Your task to perform on an android device: change notification settings in the gmail app Image 0: 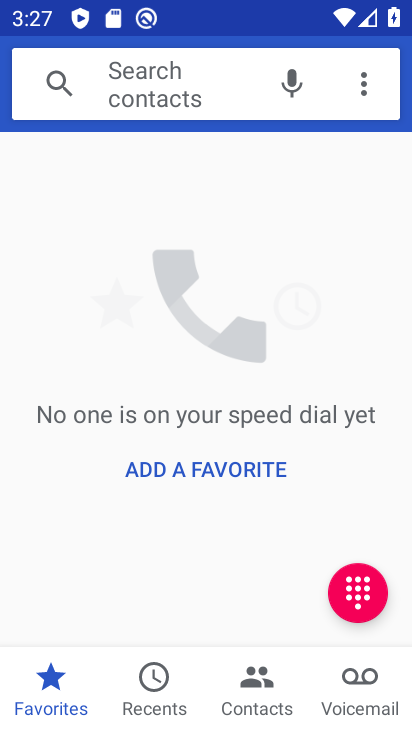
Step 0: press home button
Your task to perform on an android device: change notification settings in the gmail app Image 1: 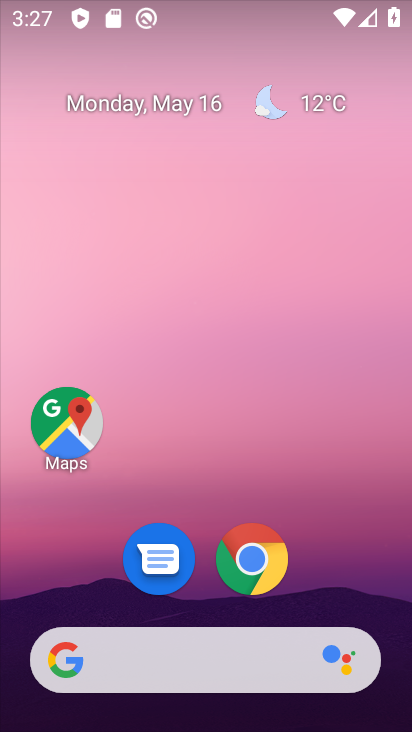
Step 1: drag from (358, 589) to (302, 58)
Your task to perform on an android device: change notification settings in the gmail app Image 2: 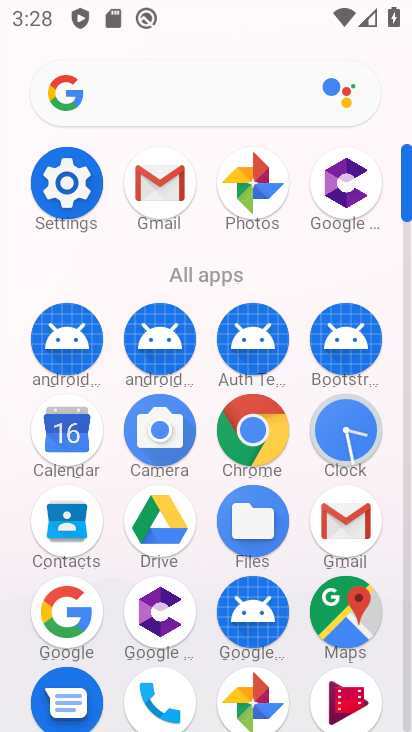
Step 2: click (176, 198)
Your task to perform on an android device: change notification settings in the gmail app Image 3: 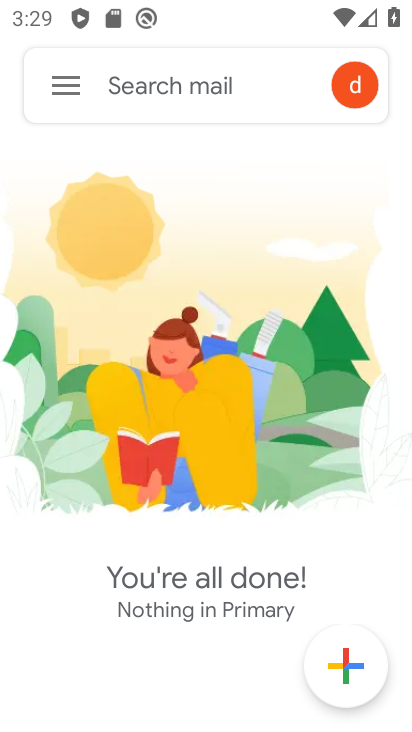
Step 3: click (91, 102)
Your task to perform on an android device: change notification settings in the gmail app Image 4: 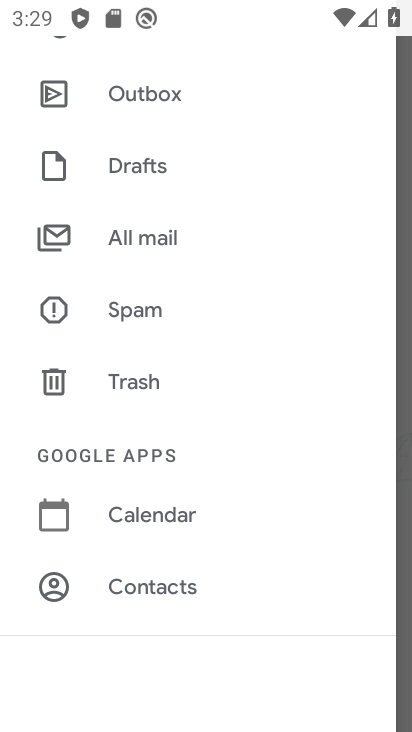
Step 4: drag from (172, 571) to (221, 233)
Your task to perform on an android device: change notification settings in the gmail app Image 5: 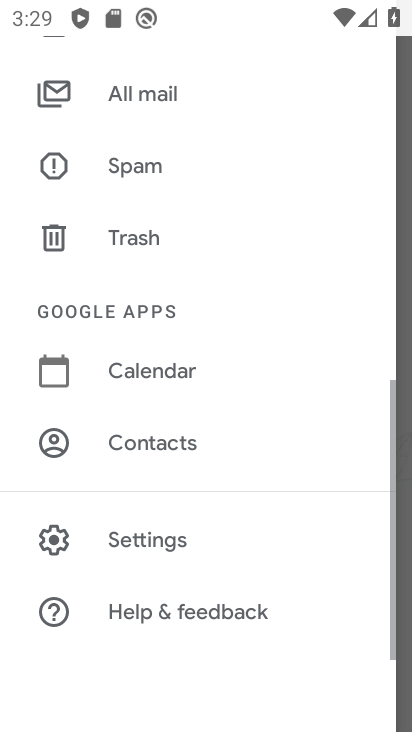
Step 5: click (203, 524)
Your task to perform on an android device: change notification settings in the gmail app Image 6: 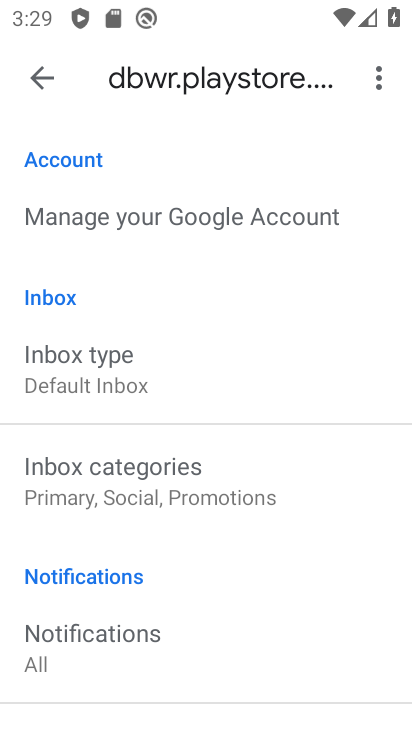
Step 6: drag from (173, 629) to (176, 376)
Your task to perform on an android device: change notification settings in the gmail app Image 7: 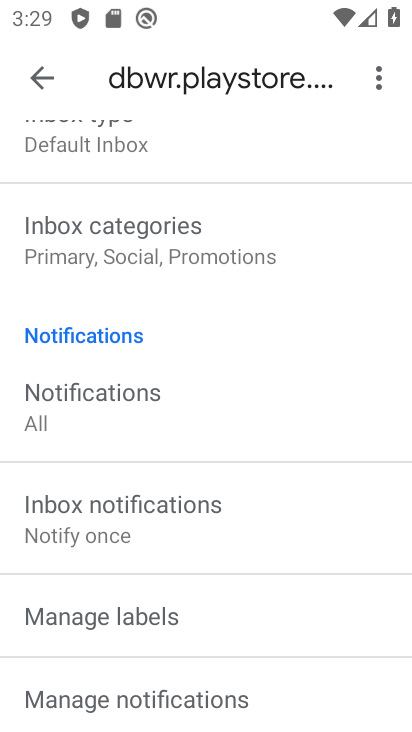
Step 7: click (180, 670)
Your task to perform on an android device: change notification settings in the gmail app Image 8: 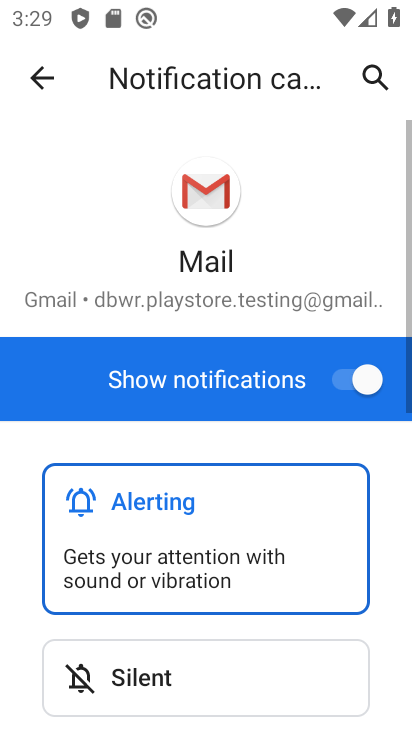
Step 8: click (357, 376)
Your task to perform on an android device: change notification settings in the gmail app Image 9: 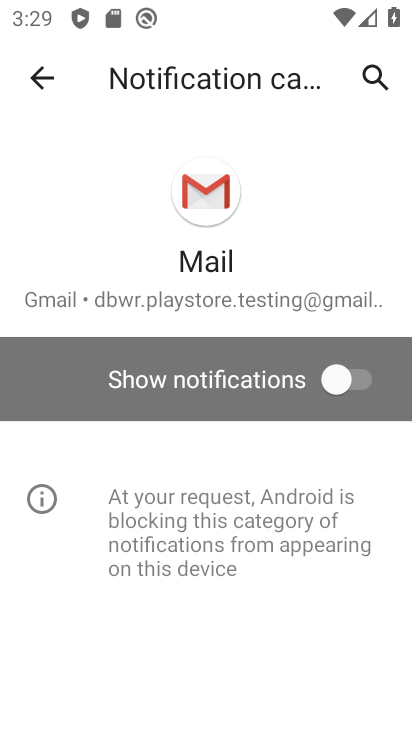
Step 9: task complete